Your task to perform on an android device: search for starred emails in the gmail app Image 0: 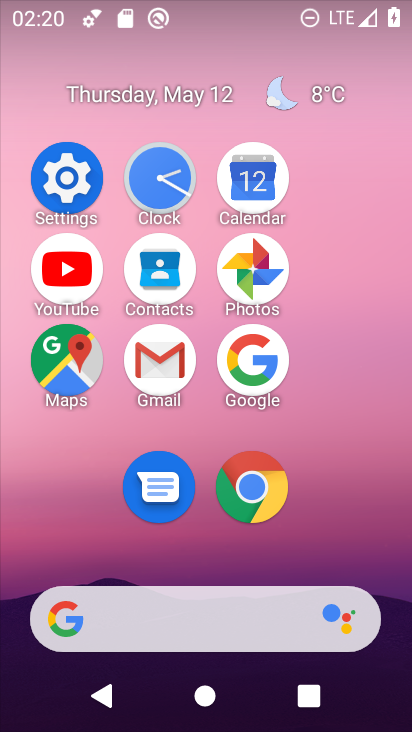
Step 0: click (154, 372)
Your task to perform on an android device: search for starred emails in the gmail app Image 1: 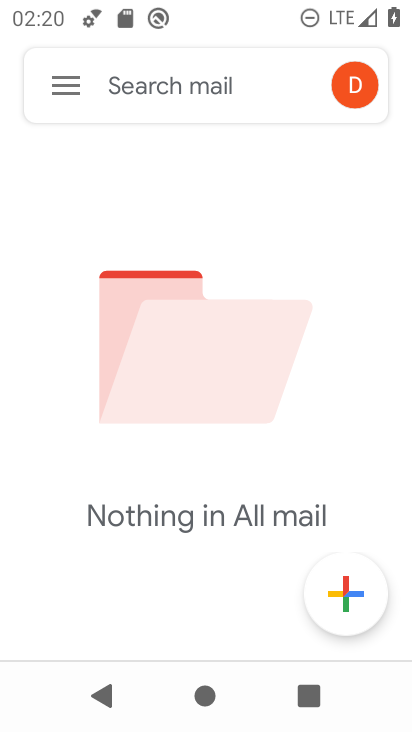
Step 1: click (62, 109)
Your task to perform on an android device: search for starred emails in the gmail app Image 2: 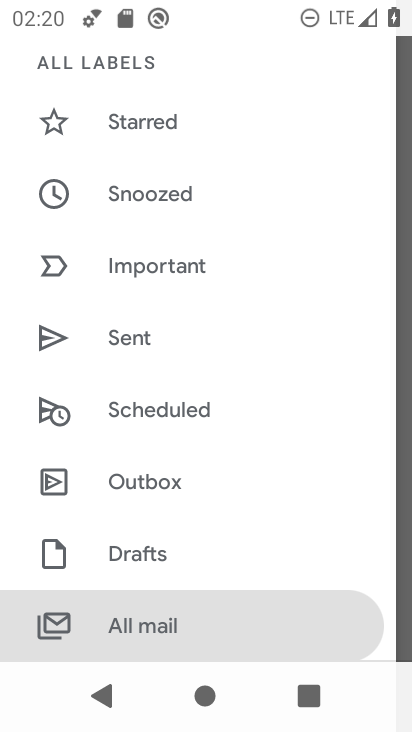
Step 2: click (188, 113)
Your task to perform on an android device: search for starred emails in the gmail app Image 3: 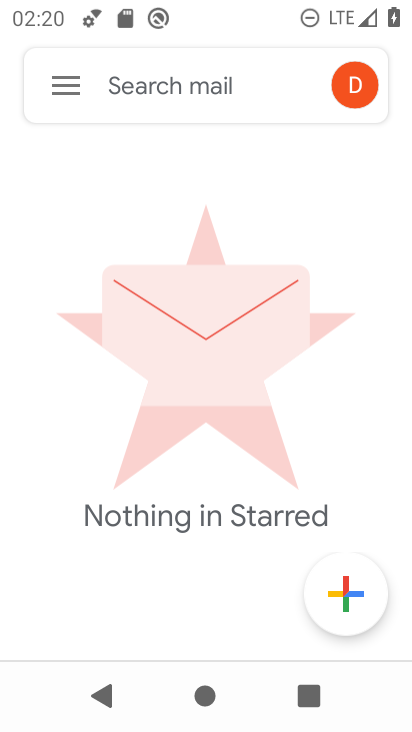
Step 3: task complete